Your task to perform on an android device: toggle show notifications on the lock screen Image 0: 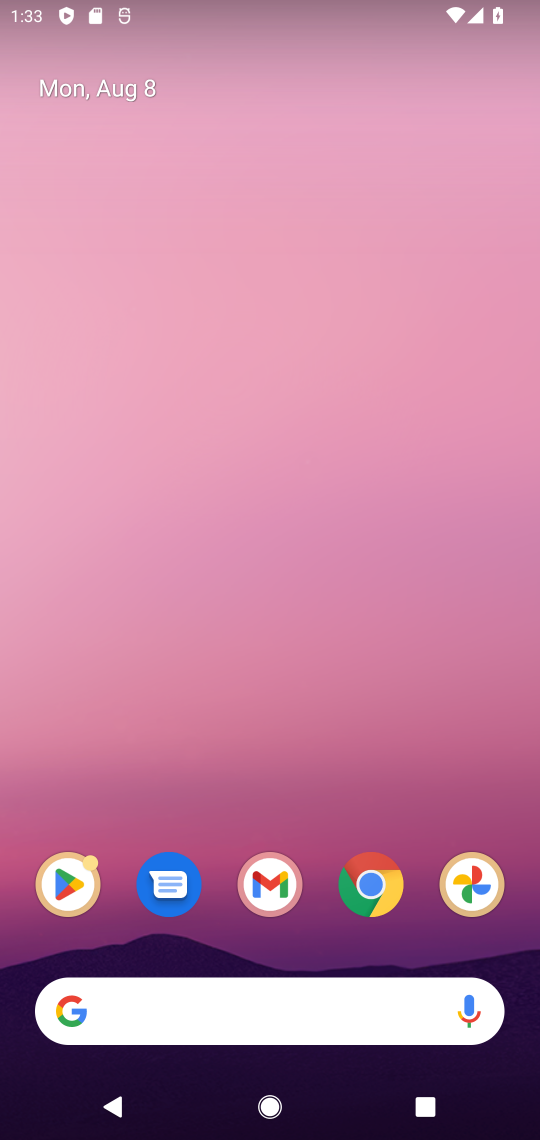
Step 0: drag from (304, 787) to (225, 97)
Your task to perform on an android device: toggle show notifications on the lock screen Image 1: 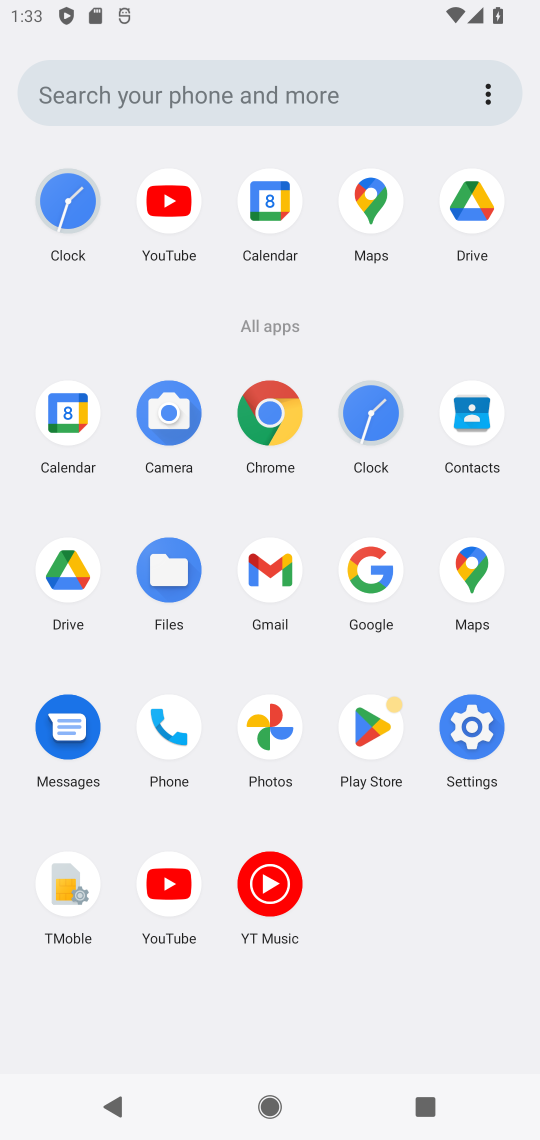
Step 1: click (464, 733)
Your task to perform on an android device: toggle show notifications on the lock screen Image 2: 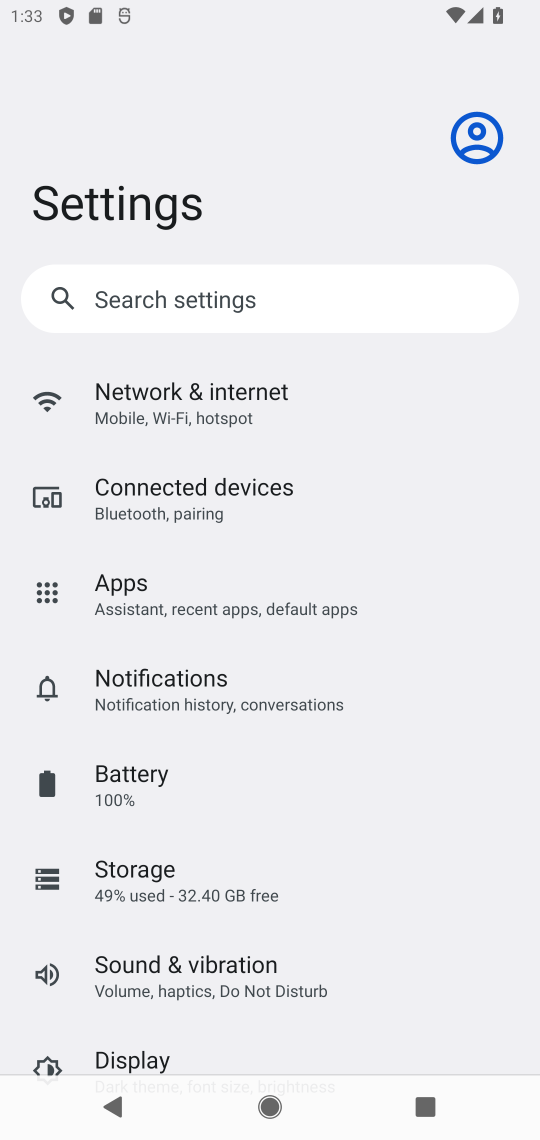
Step 2: click (184, 674)
Your task to perform on an android device: toggle show notifications on the lock screen Image 3: 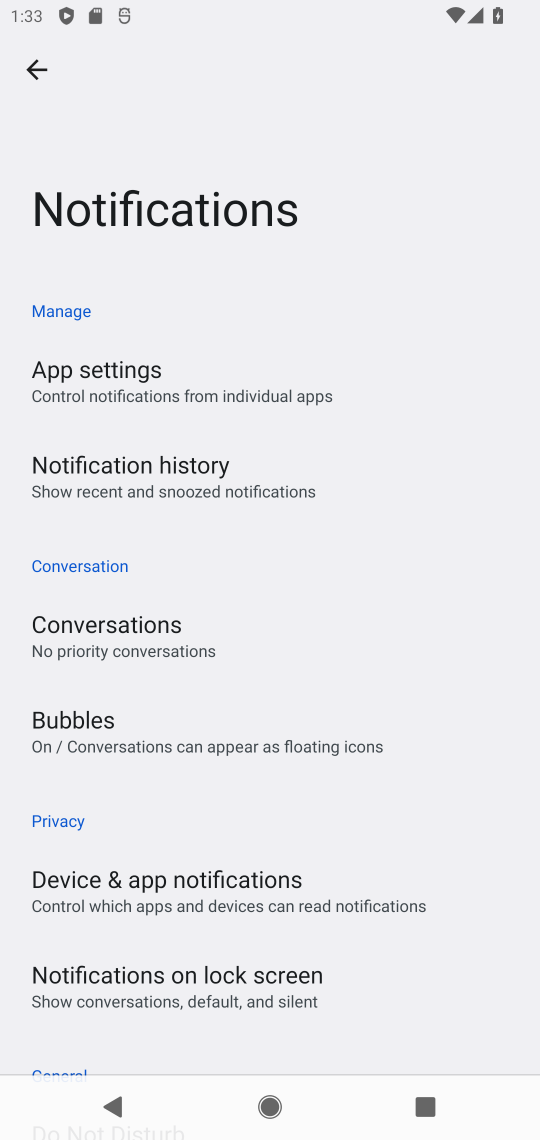
Step 3: click (209, 974)
Your task to perform on an android device: toggle show notifications on the lock screen Image 4: 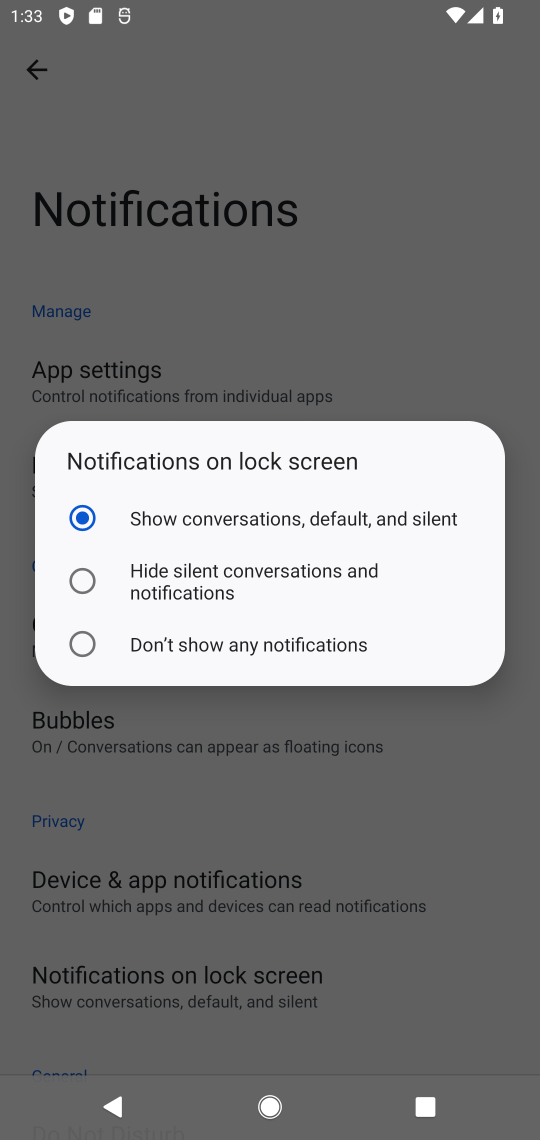
Step 4: click (84, 643)
Your task to perform on an android device: toggle show notifications on the lock screen Image 5: 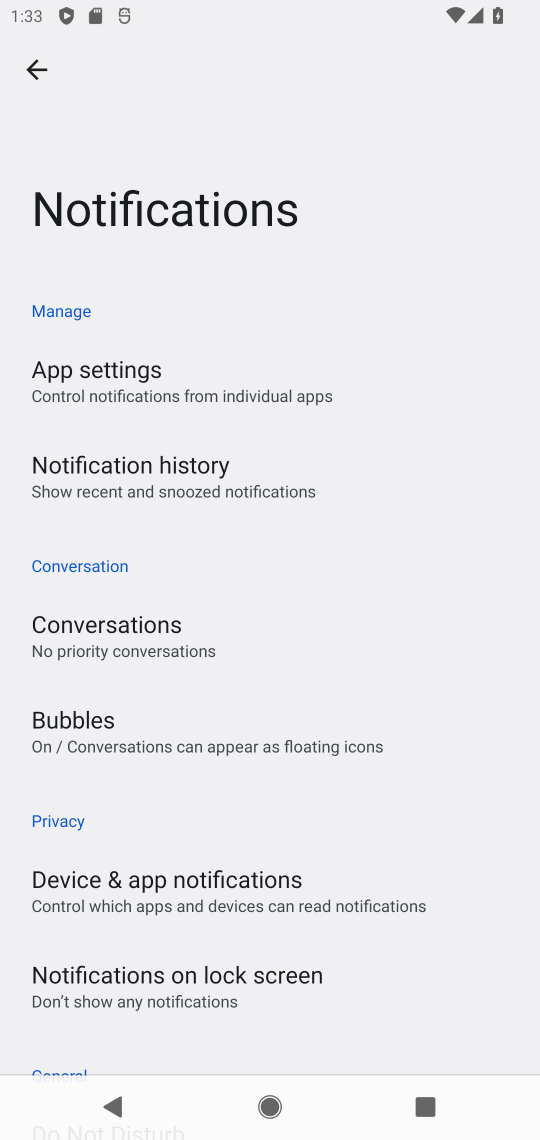
Step 5: task complete